Your task to perform on an android device: Go to Google maps Image 0: 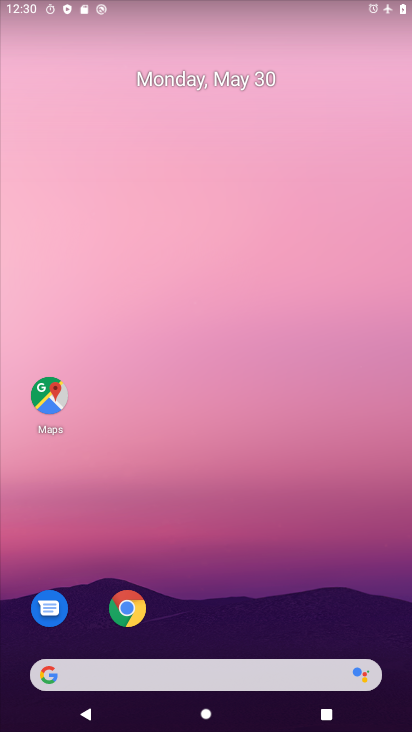
Step 0: drag from (204, 635) to (139, 13)
Your task to perform on an android device: Go to Google maps Image 1: 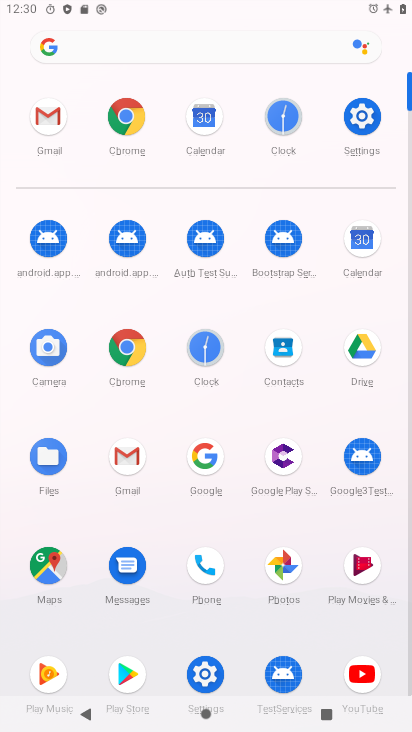
Step 1: click (39, 581)
Your task to perform on an android device: Go to Google maps Image 2: 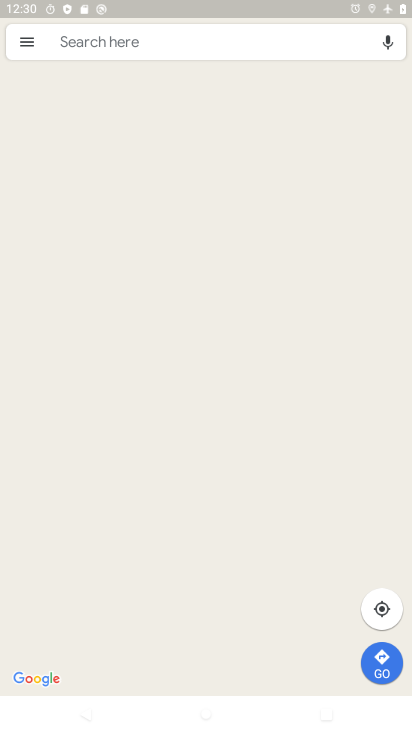
Step 2: task complete